Your task to perform on an android device: set default search engine in the chrome app Image 0: 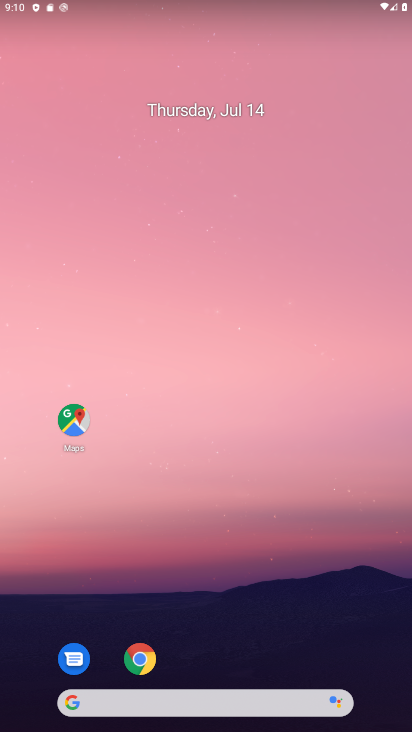
Step 0: drag from (209, 693) to (408, 560)
Your task to perform on an android device: set default search engine in the chrome app Image 1: 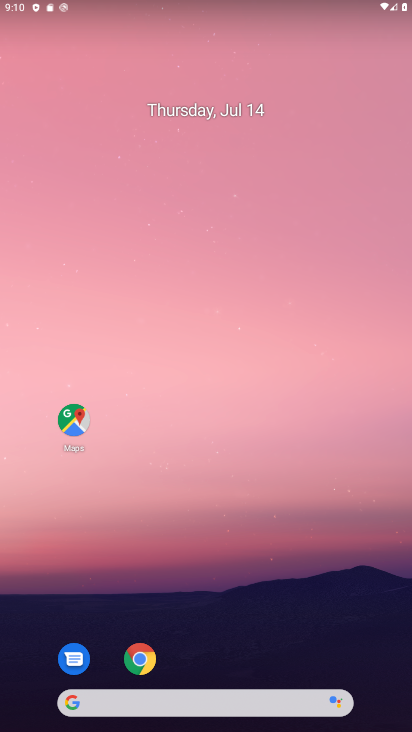
Step 1: drag from (218, 696) to (325, 4)
Your task to perform on an android device: set default search engine in the chrome app Image 2: 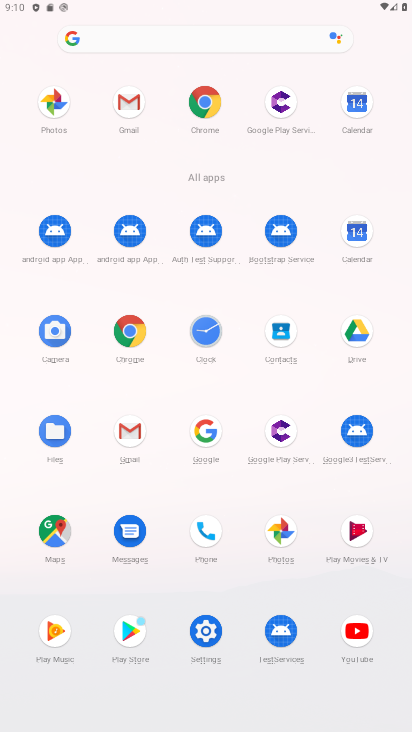
Step 2: click (131, 317)
Your task to perform on an android device: set default search engine in the chrome app Image 3: 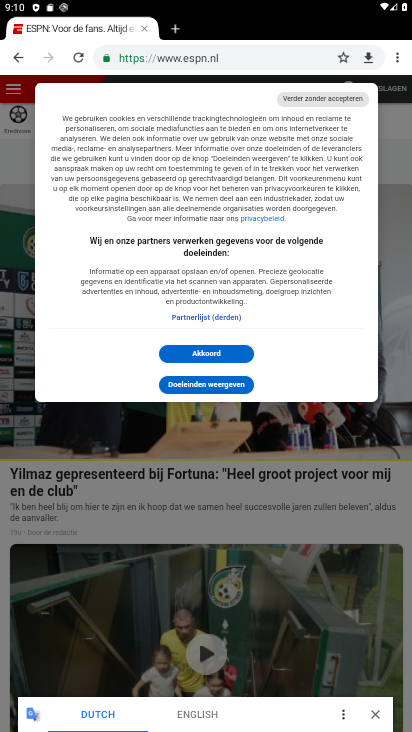
Step 3: click (400, 53)
Your task to perform on an android device: set default search engine in the chrome app Image 4: 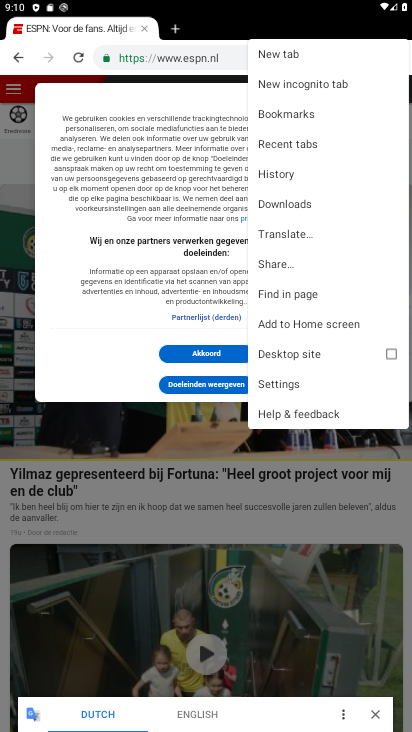
Step 4: click (309, 387)
Your task to perform on an android device: set default search engine in the chrome app Image 5: 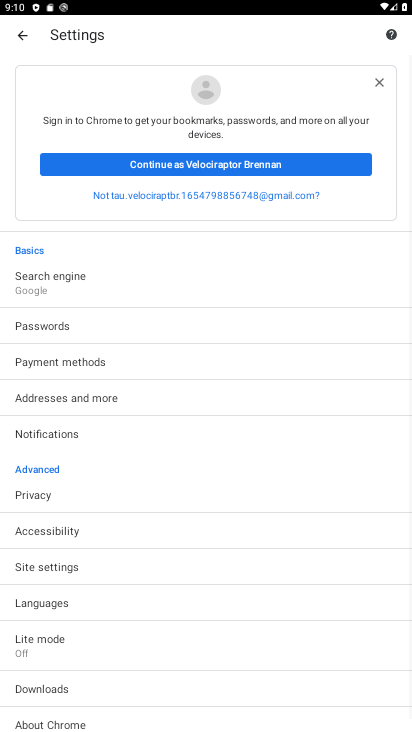
Step 5: click (105, 290)
Your task to perform on an android device: set default search engine in the chrome app Image 6: 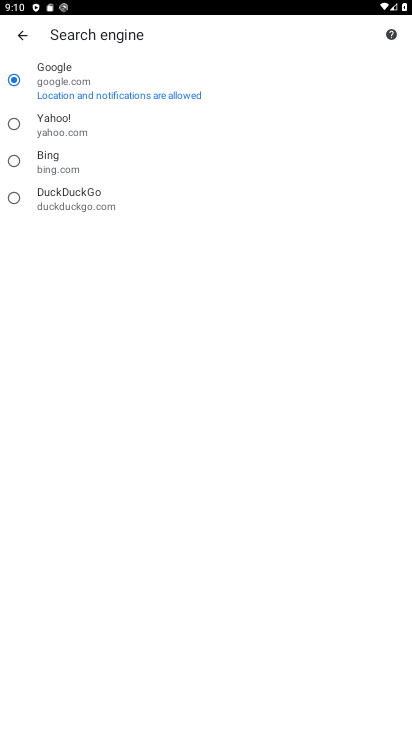
Step 6: task complete